Your task to perform on an android device: Show me the alarms in the clock app Image 0: 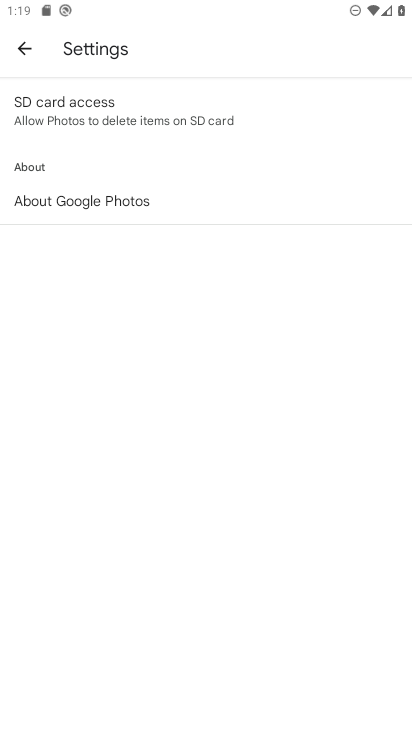
Step 0: press home button
Your task to perform on an android device: Show me the alarms in the clock app Image 1: 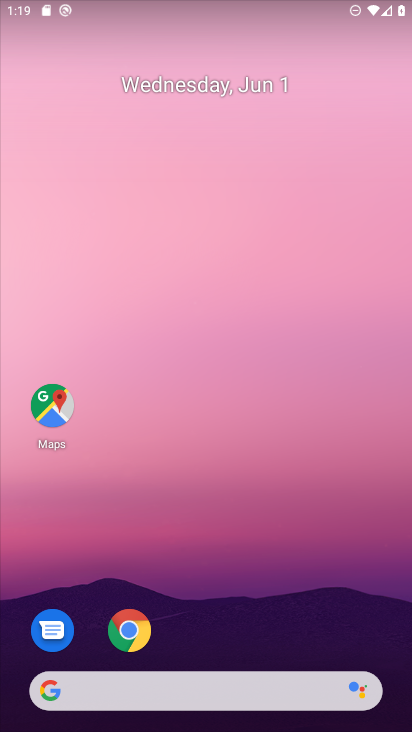
Step 1: drag from (188, 591) to (142, 171)
Your task to perform on an android device: Show me the alarms in the clock app Image 2: 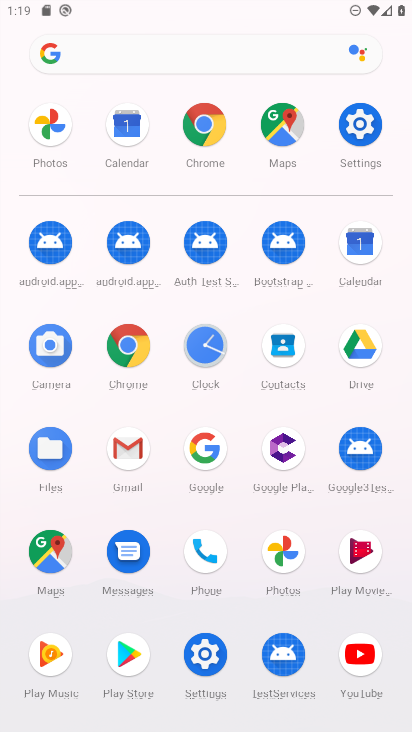
Step 2: click (200, 338)
Your task to perform on an android device: Show me the alarms in the clock app Image 3: 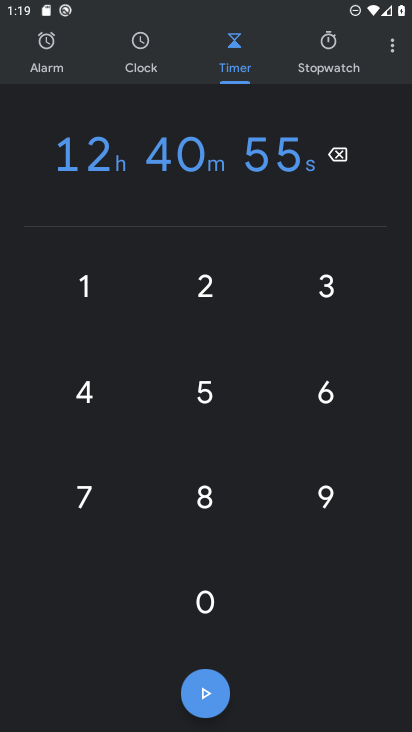
Step 3: click (48, 50)
Your task to perform on an android device: Show me the alarms in the clock app Image 4: 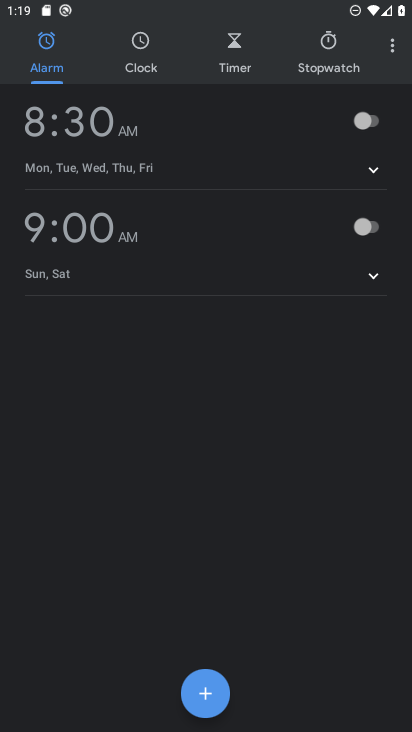
Step 4: task complete